Your task to perform on an android device: Open Youtube and go to the subscriptions tab Image 0: 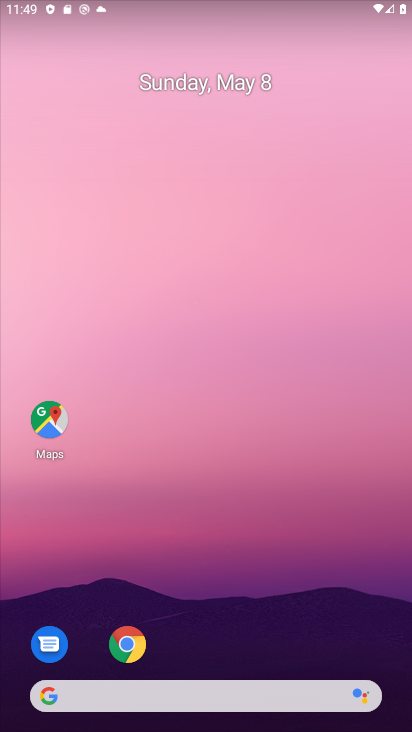
Step 0: drag from (279, 610) to (218, 6)
Your task to perform on an android device: Open Youtube and go to the subscriptions tab Image 1: 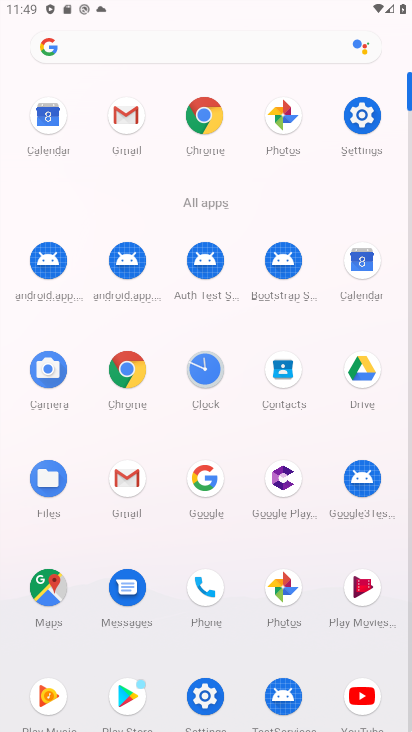
Step 1: click (360, 690)
Your task to perform on an android device: Open Youtube and go to the subscriptions tab Image 2: 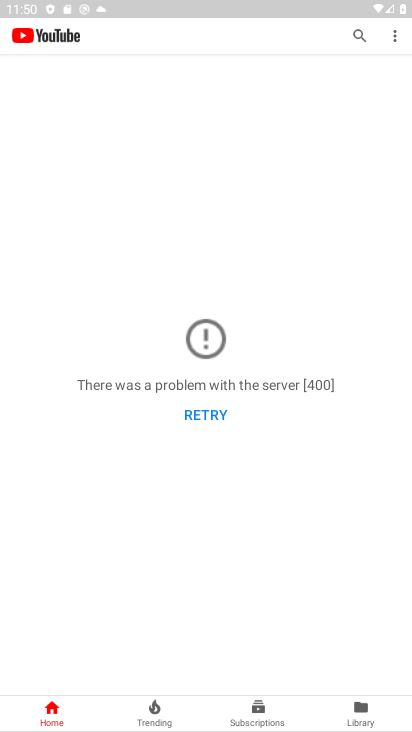
Step 2: click (357, 713)
Your task to perform on an android device: Open Youtube and go to the subscriptions tab Image 3: 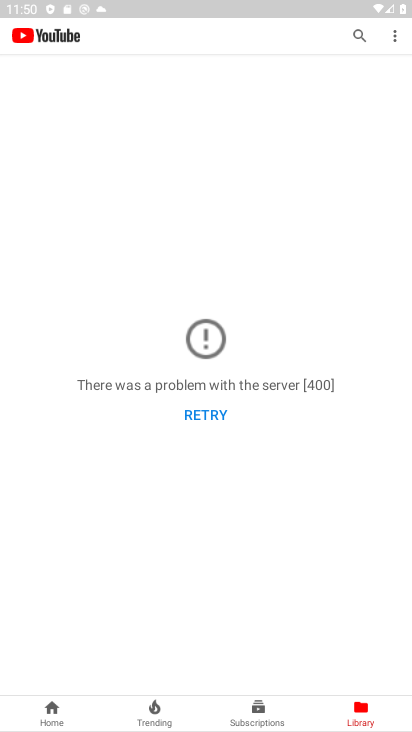
Step 3: click (248, 702)
Your task to perform on an android device: Open Youtube and go to the subscriptions tab Image 4: 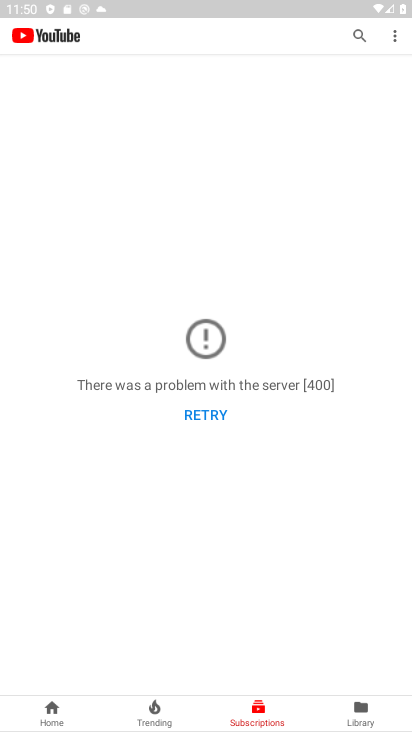
Step 4: task complete